Your task to perform on an android device: open device folders in google photos Image 0: 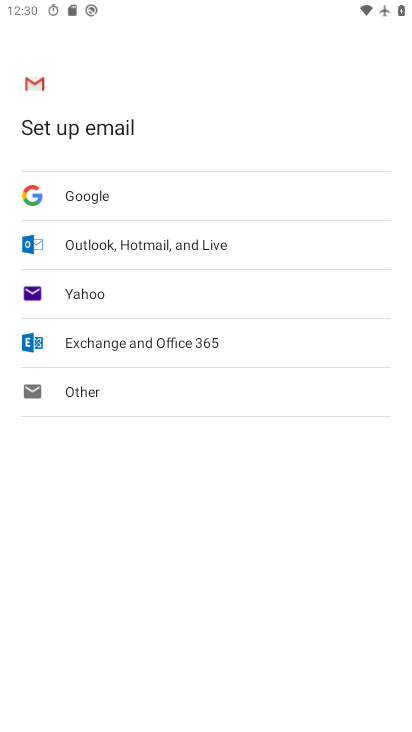
Step 0: press home button
Your task to perform on an android device: open device folders in google photos Image 1: 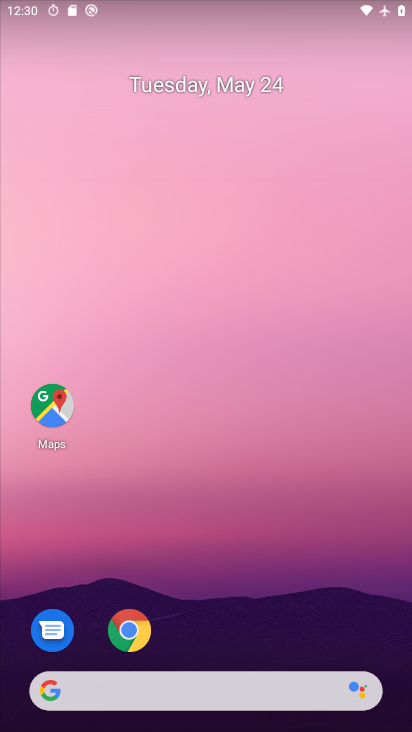
Step 1: drag from (226, 641) to (242, 71)
Your task to perform on an android device: open device folders in google photos Image 2: 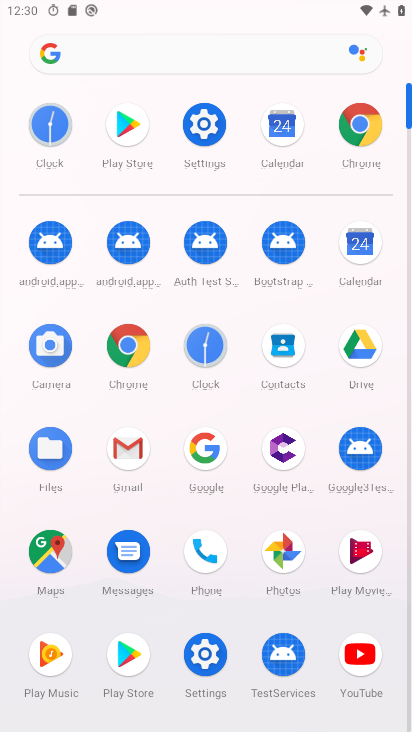
Step 2: click (292, 562)
Your task to perform on an android device: open device folders in google photos Image 3: 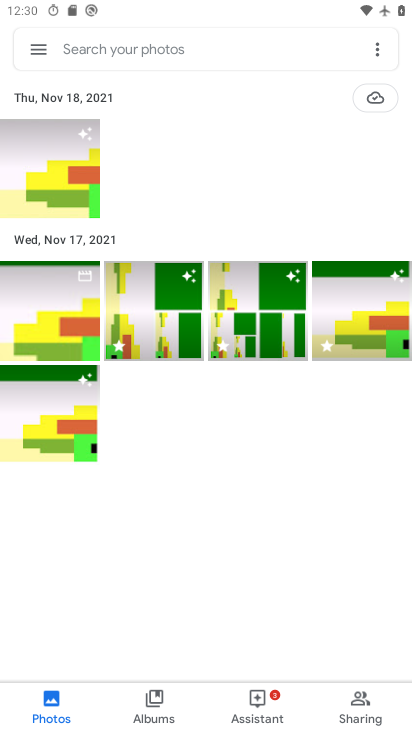
Step 3: click (49, 42)
Your task to perform on an android device: open device folders in google photos Image 4: 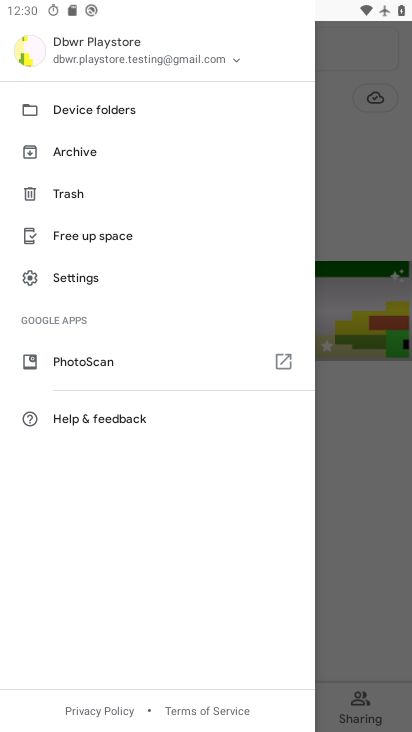
Step 4: click (79, 111)
Your task to perform on an android device: open device folders in google photos Image 5: 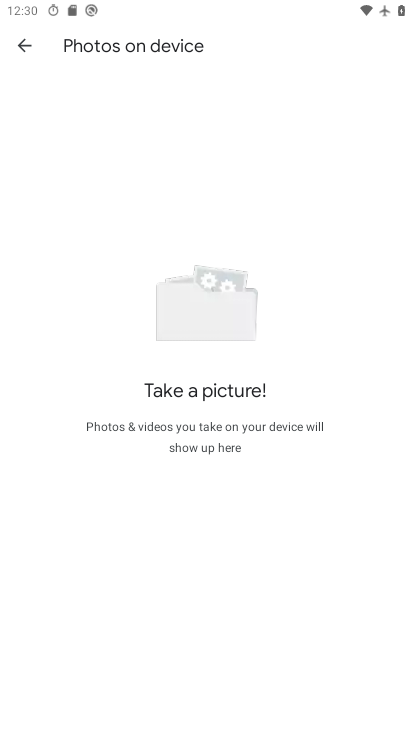
Step 5: task complete